Your task to perform on an android device: Open Maps and search for coffee Image 0: 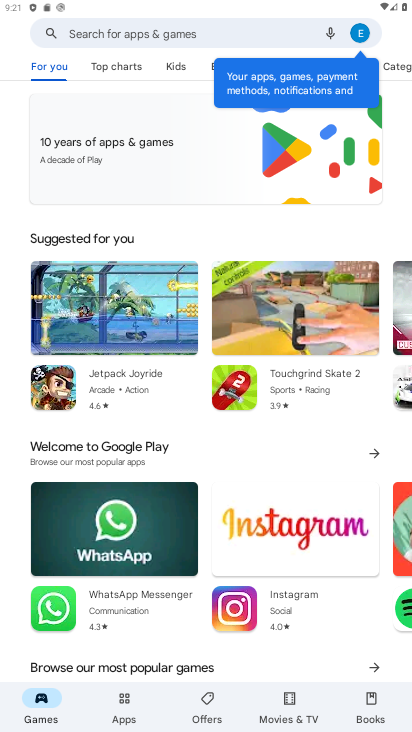
Step 0: press home button
Your task to perform on an android device: Open Maps and search for coffee Image 1: 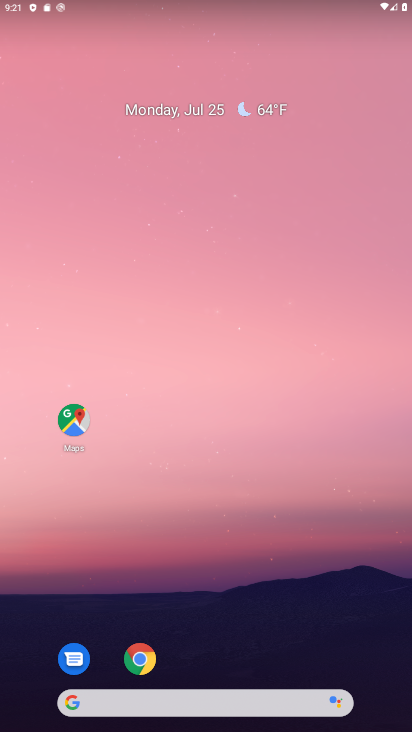
Step 1: drag from (326, 635) to (377, 76)
Your task to perform on an android device: Open Maps and search for coffee Image 2: 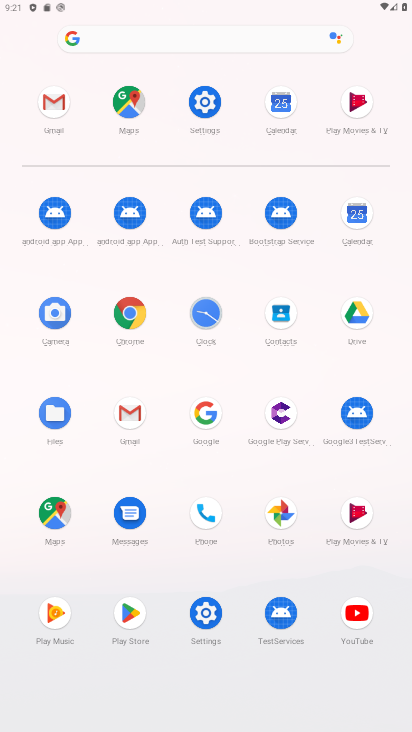
Step 2: click (56, 517)
Your task to perform on an android device: Open Maps and search for coffee Image 3: 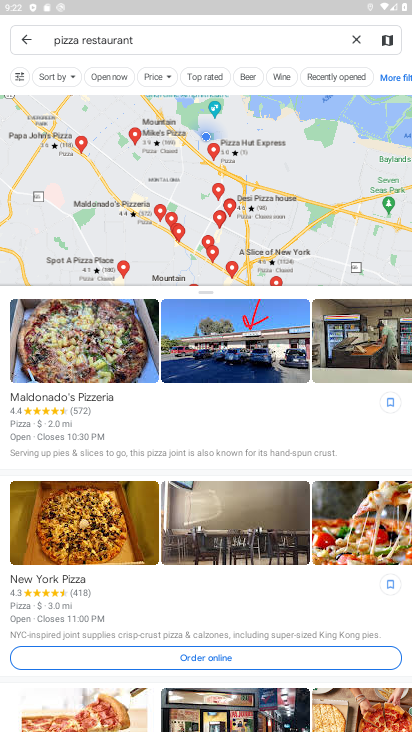
Step 3: press back button
Your task to perform on an android device: Open Maps and search for coffee Image 4: 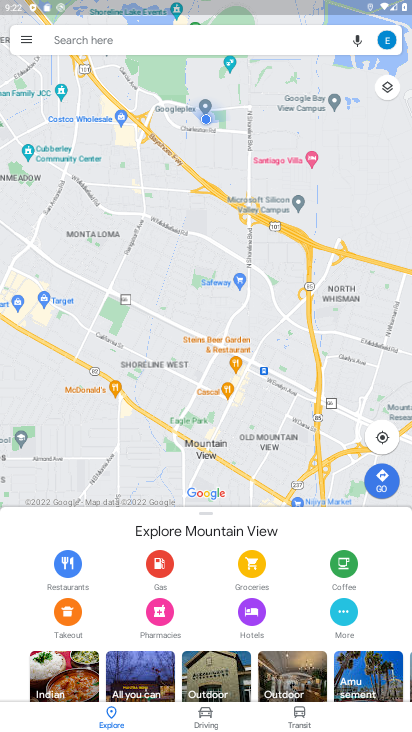
Step 4: click (155, 43)
Your task to perform on an android device: Open Maps and search for coffee Image 5: 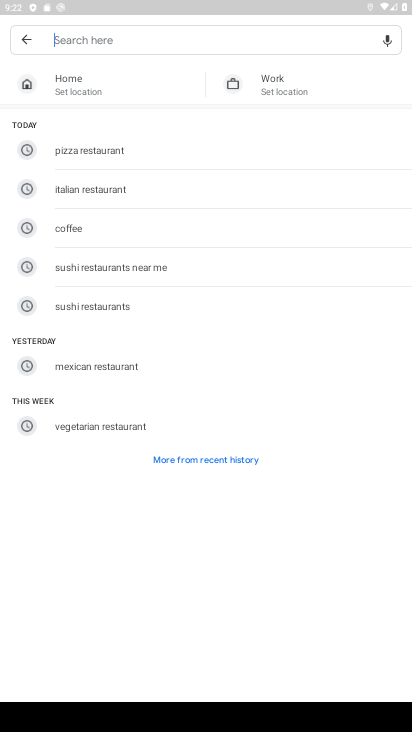
Step 5: type "coffee"
Your task to perform on an android device: Open Maps and search for coffee Image 6: 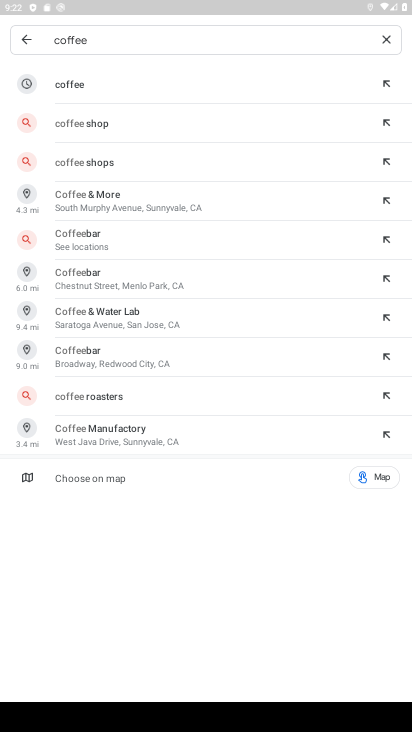
Step 6: click (152, 89)
Your task to perform on an android device: Open Maps and search for coffee Image 7: 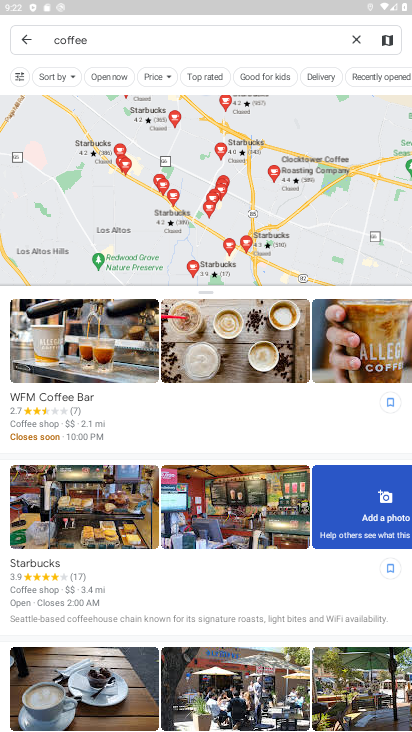
Step 7: task complete